Your task to perform on an android device: open chrome privacy settings Image 0: 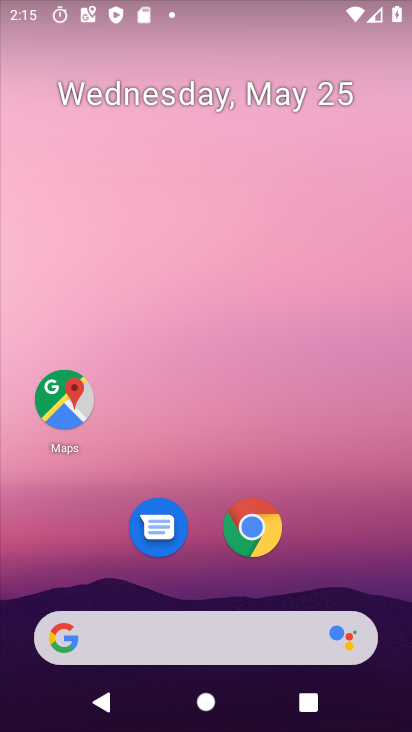
Step 0: click (219, 143)
Your task to perform on an android device: open chrome privacy settings Image 1: 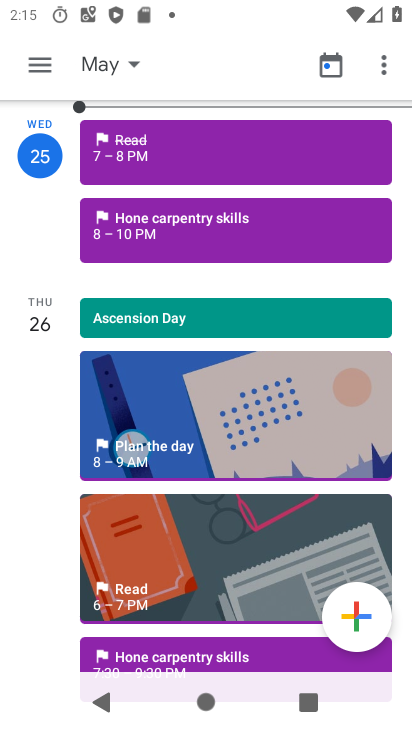
Step 1: drag from (222, 555) to (309, 246)
Your task to perform on an android device: open chrome privacy settings Image 2: 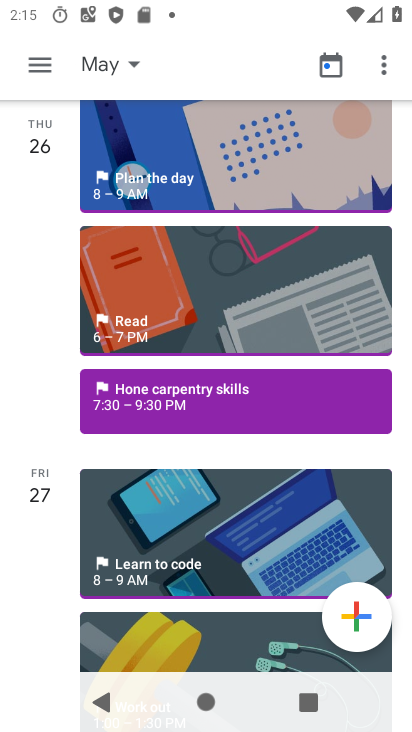
Step 2: drag from (216, 636) to (272, 273)
Your task to perform on an android device: open chrome privacy settings Image 3: 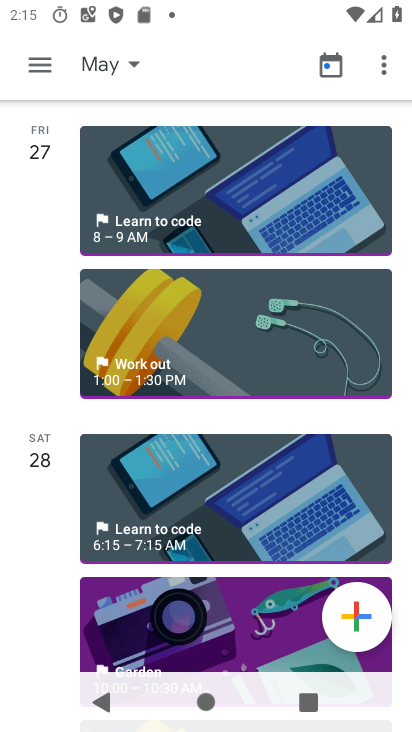
Step 3: drag from (188, 244) to (266, 617)
Your task to perform on an android device: open chrome privacy settings Image 4: 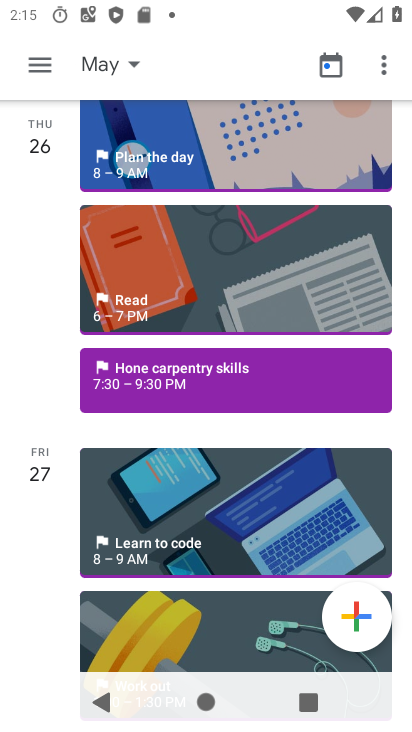
Step 4: press home button
Your task to perform on an android device: open chrome privacy settings Image 5: 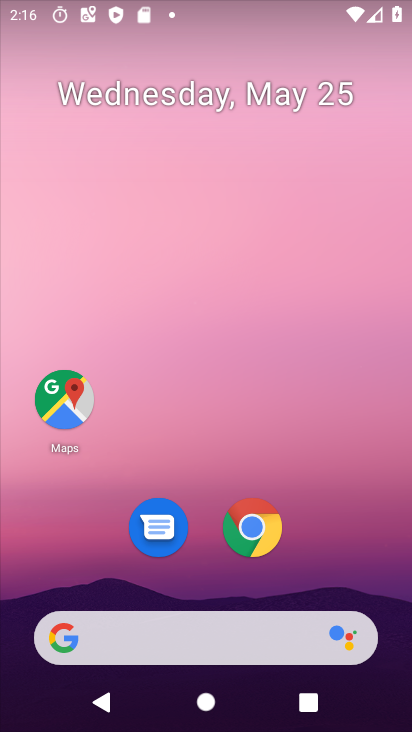
Step 5: drag from (210, 589) to (306, 247)
Your task to perform on an android device: open chrome privacy settings Image 6: 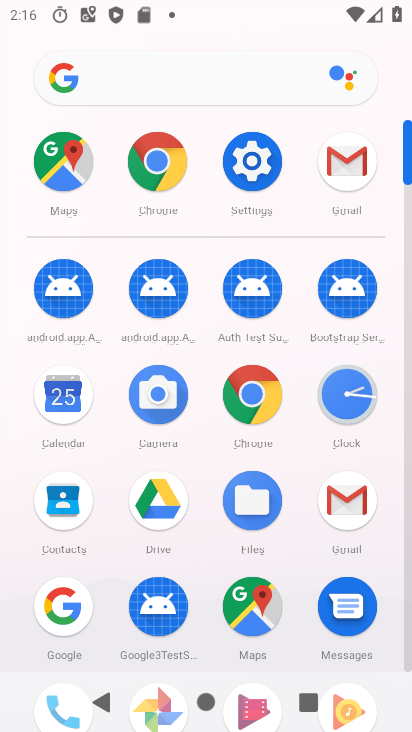
Step 6: click (168, 87)
Your task to perform on an android device: open chrome privacy settings Image 7: 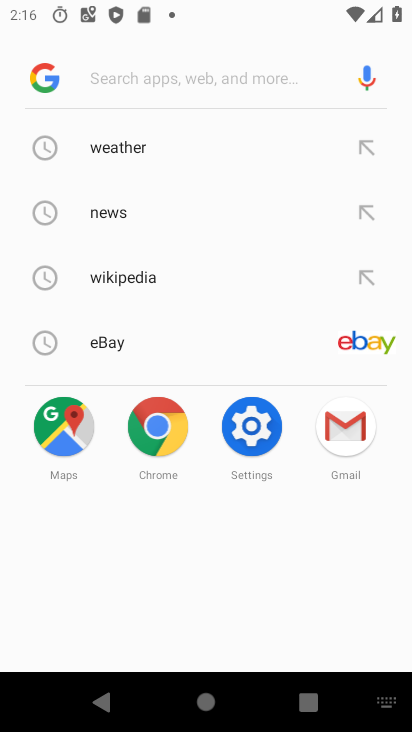
Step 7: press home button
Your task to perform on an android device: open chrome privacy settings Image 8: 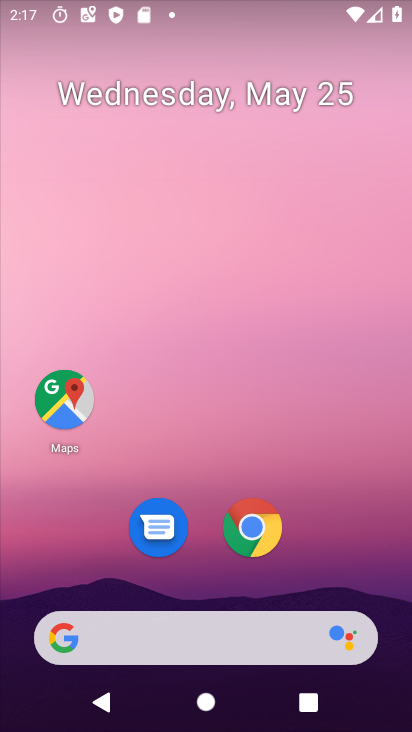
Step 8: drag from (213, 583) to (256, 46)
Your task to perform on an android device: open chrome privacy settings Image 9: 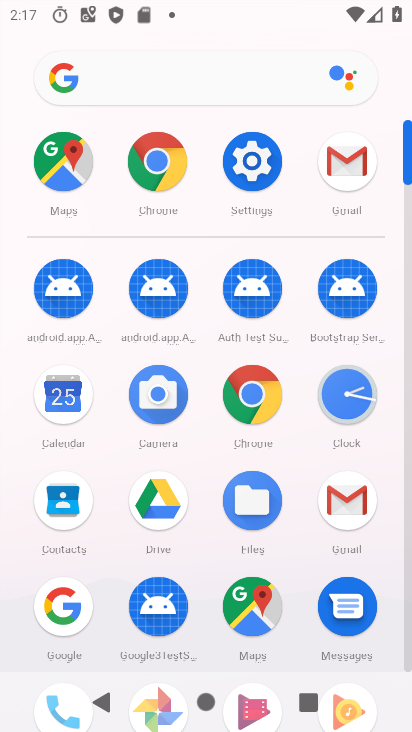
Step 9: click (242, 388)
Your task to perform on an android device: open chrome privacy settings Image 10: 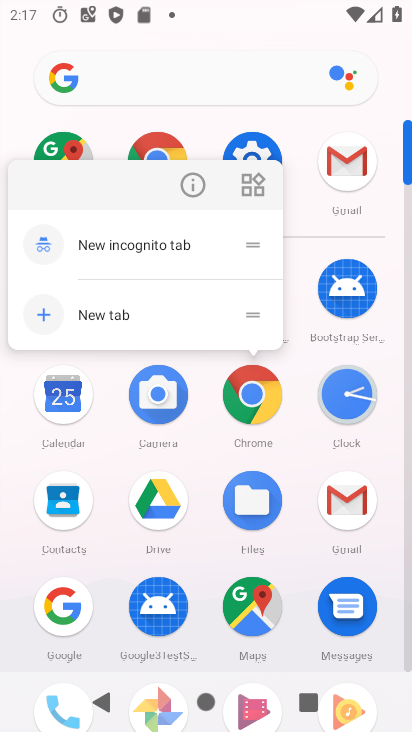
Step 10: click (189, 177)
Your task to perform on an android device: open chrome privacy settings Image 11: 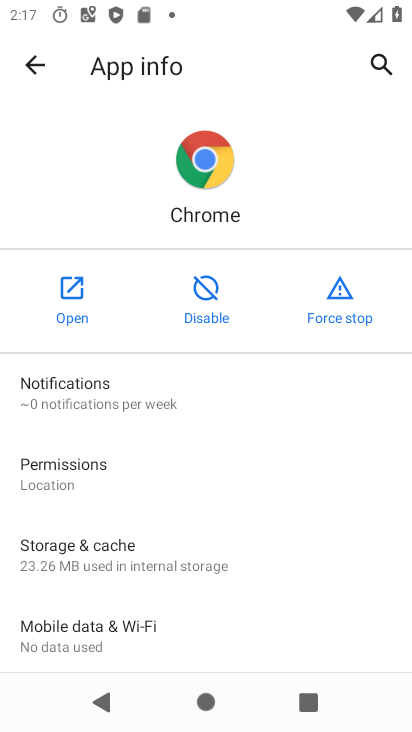
Step 11: click (42, 310)
Your task to perform on an android device: open chrome privacy settings Image 12: 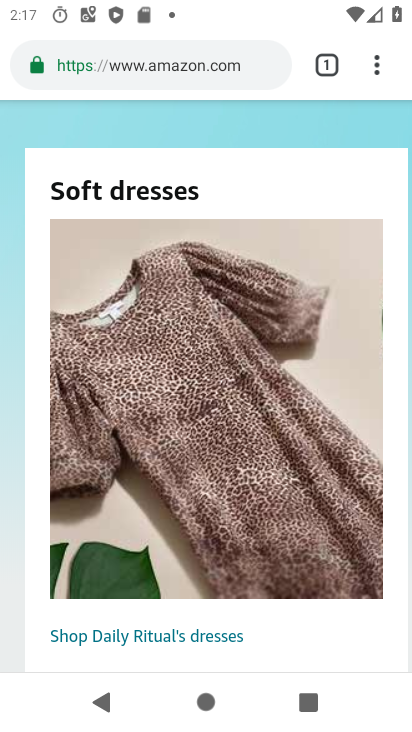
Step 12: click (374, 72)
Your task to perform on an android device: open chrome privacy settings Image 13: 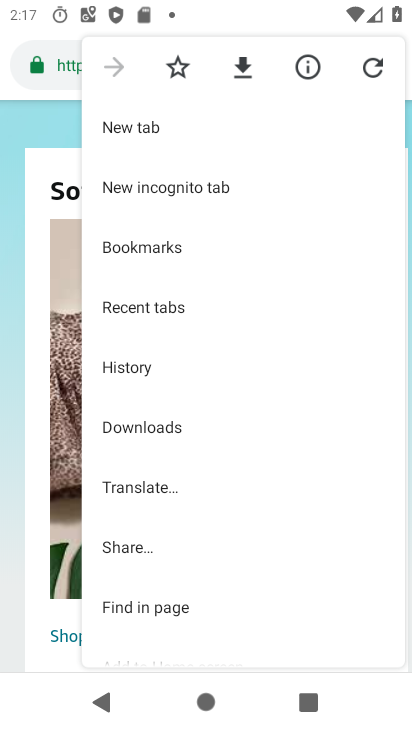
Step 13: drag from (164, 535) to (264, 35)
Your task to perform on an android device: open chrome privacy settings Image 14: 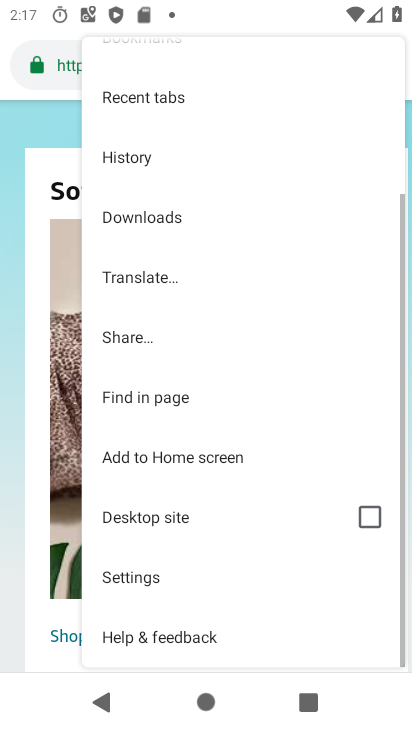
Step 14: click (151, 569)
Your task to perform on an android device: open chrome privacy settings Image 15: 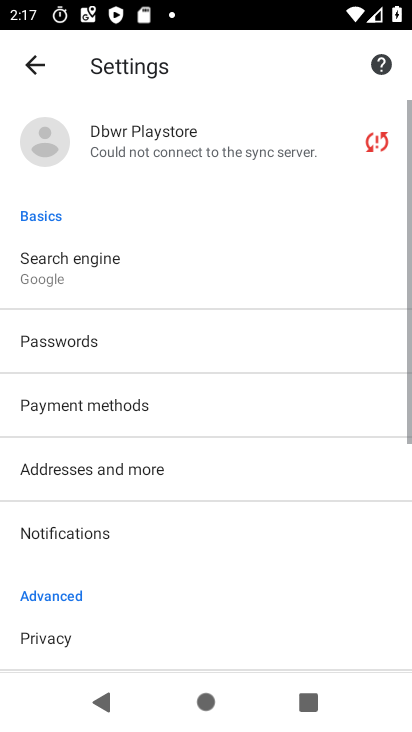
Step 15: drag from (158, 548) to (277, 67)
Your task to perform on an android device: open chrome privacy settings Image 16: 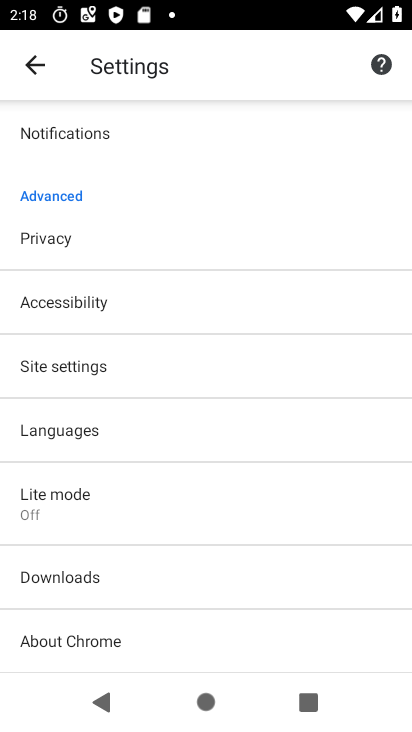
Step 16: drag from (242, 445) to (315, 188)
Your task to perform on an android device: open chrome privacy settings Image 17: 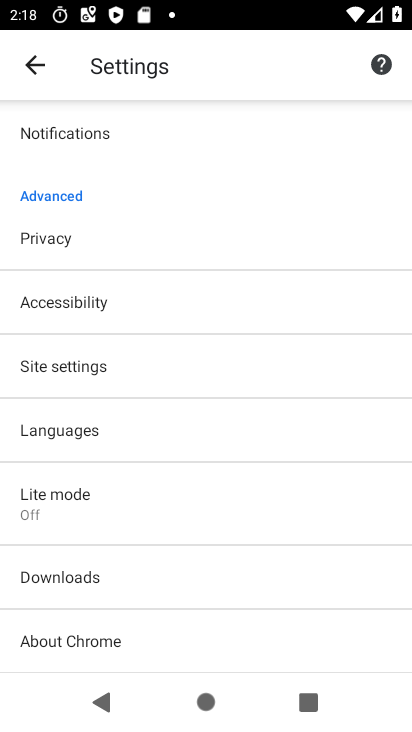
Step 17: click (96, 253)
Your task to perform on an android device: open chrome privacy settings Image 18: 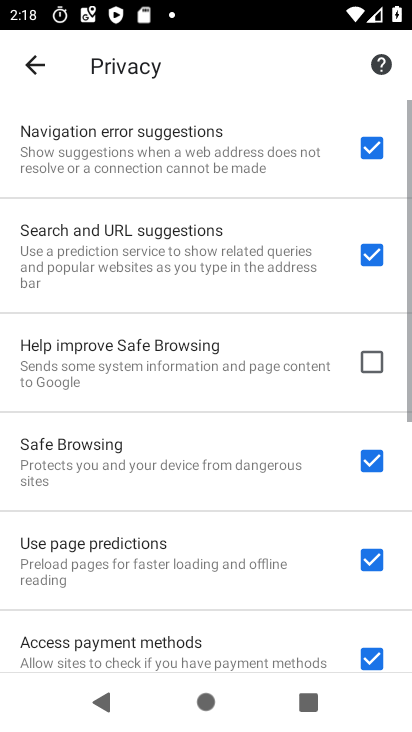
Step 18: task complete